Your task to perform on an android device: Open Google Maps Image 0: 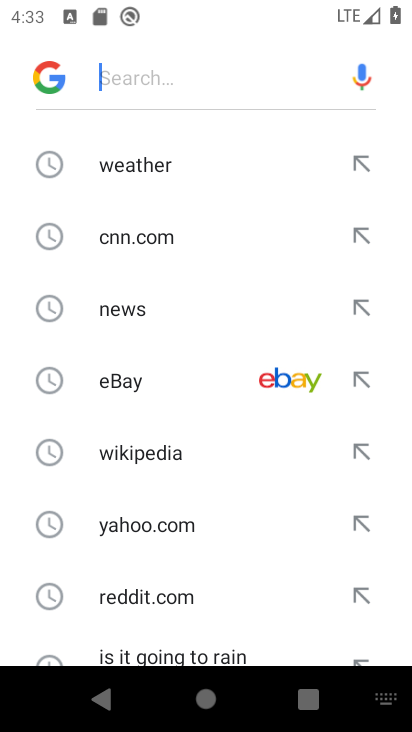
Step 0: press home button
Your task to perform on an android device: Open Google Maps Image 1: 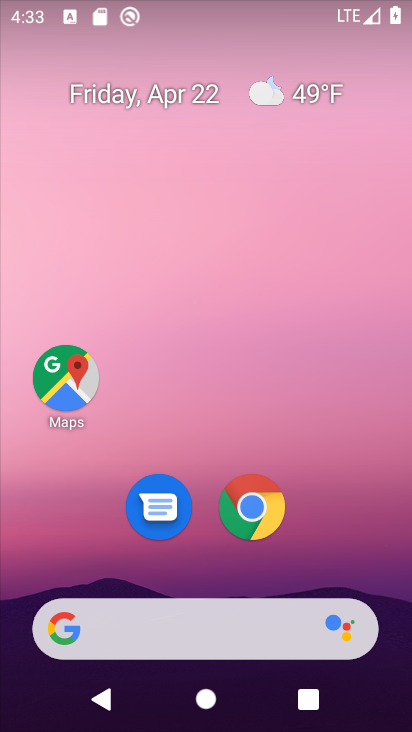
Step 1: click (65, 377)
Your task to perform on an android device: Open Google Maps Image 2: 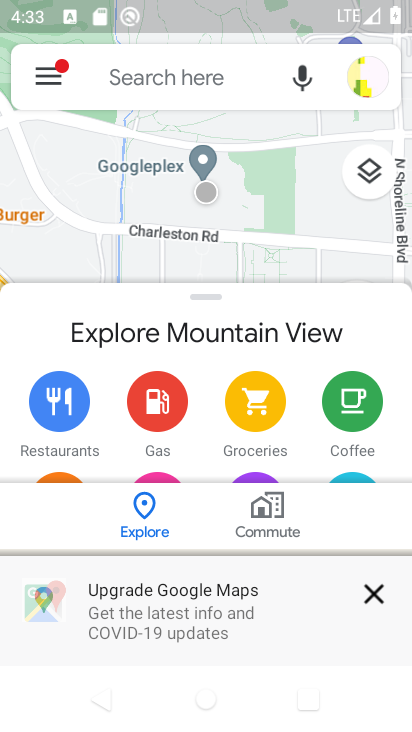
Step 2: drag from (223, 237) to (209, 344)
Your task to perform on an android device: Open Google Maps Image 3: 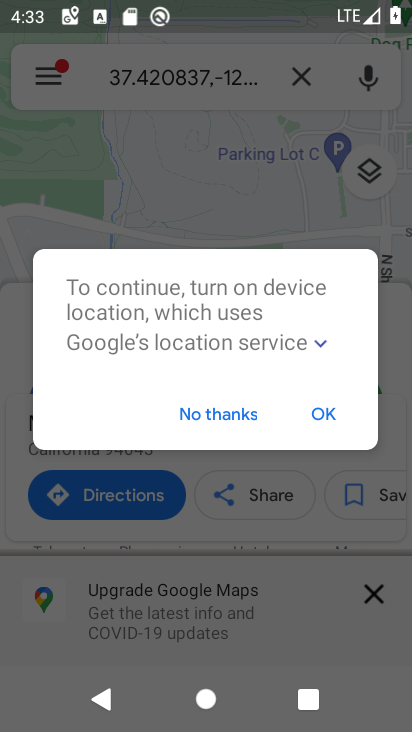
Step 3: click (313, 415)
Your task to perform on an android device: Open Google Maps Image 4: 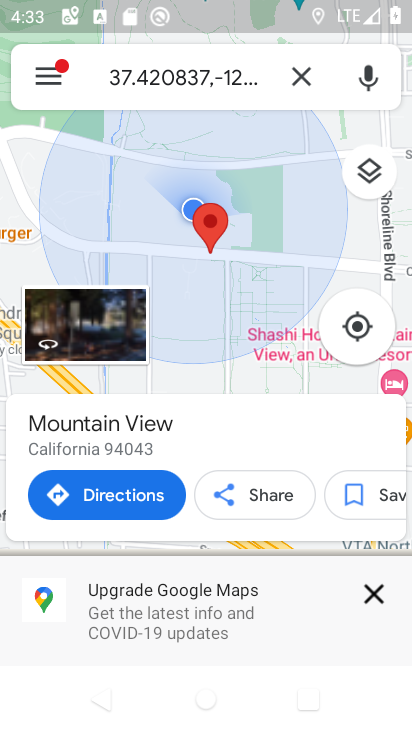
Step 4: task complete